Your task to perform on an android device: Open internet settings Image 0: 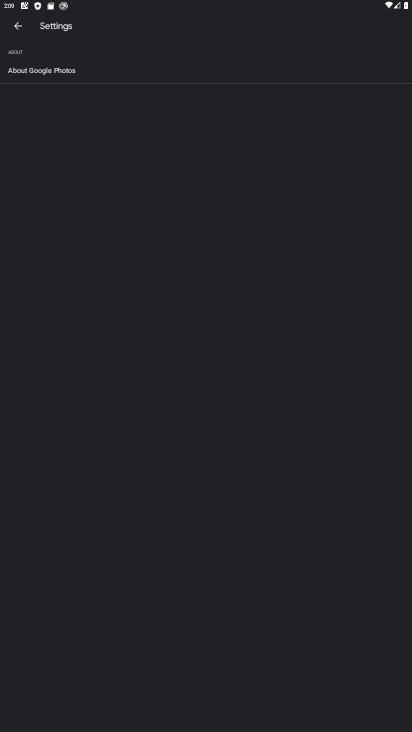
Step 0: press home button
Your task to perform on an android device: Open internet settings Image 1: 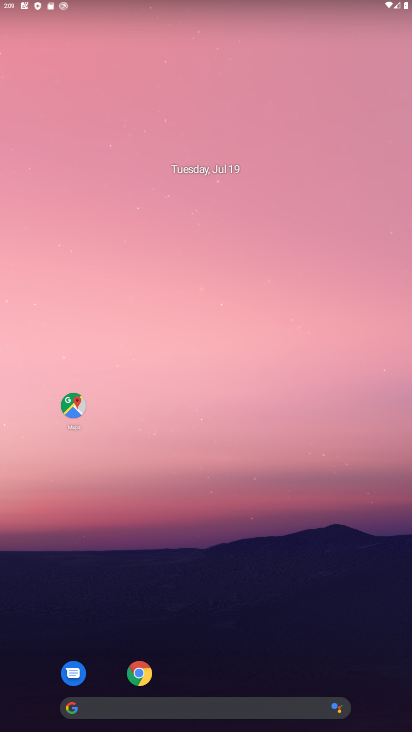
Step 1: drag from (182, 709) to (221, 245)
Your task to perform on an android device: Open internet settings Image 2: 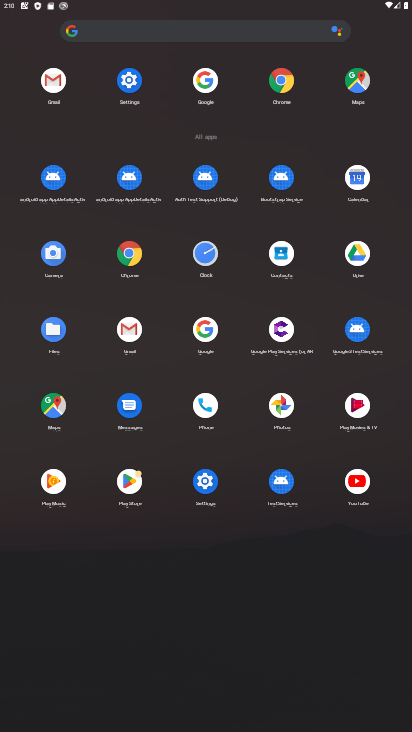
Step 2: click (129, 79)
Your task to perform on an android device: Open internet settings Image 3: 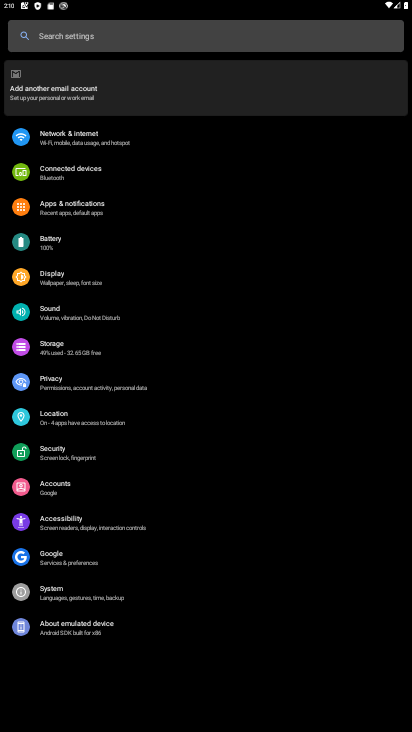
Step 3: click (99, 140)
Your task to perform on an android device: Open internet settings Image 4: 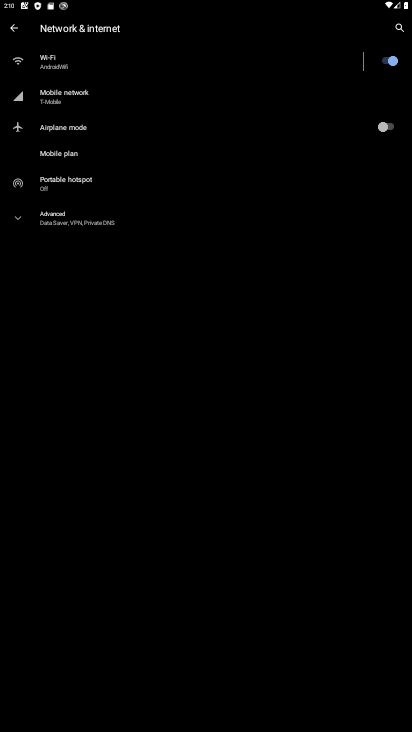
Step 4: task complete